Your task to perform on an android device: Add "macbook" to the cart on amazon Image 0: 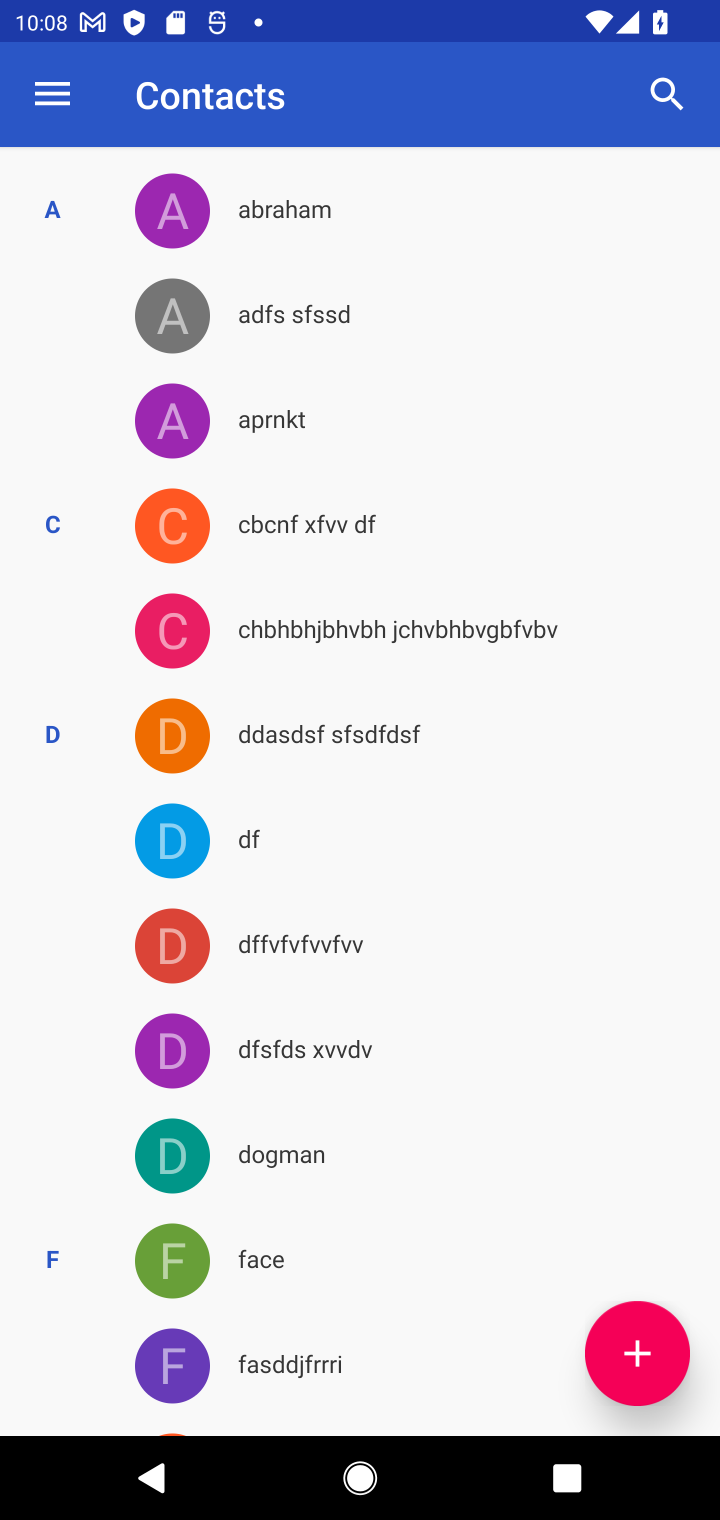
Step 0: press home button
Your task to perform on an android device: Add "macbook" to the cart on amazon Image 1: 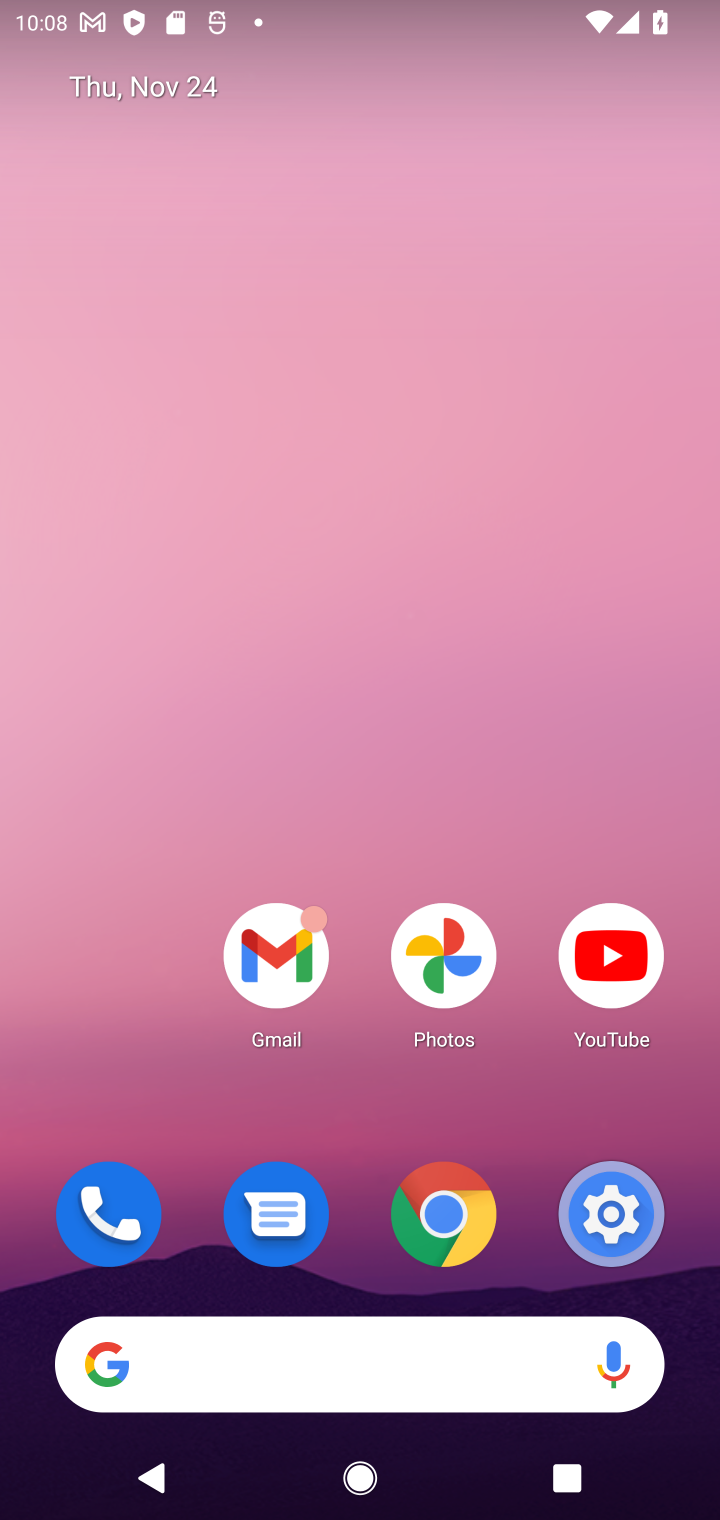
Step 1: click (389, 1376)
Your task to perform on an android device: Add "macbook" to the cart on amazon Image 2: 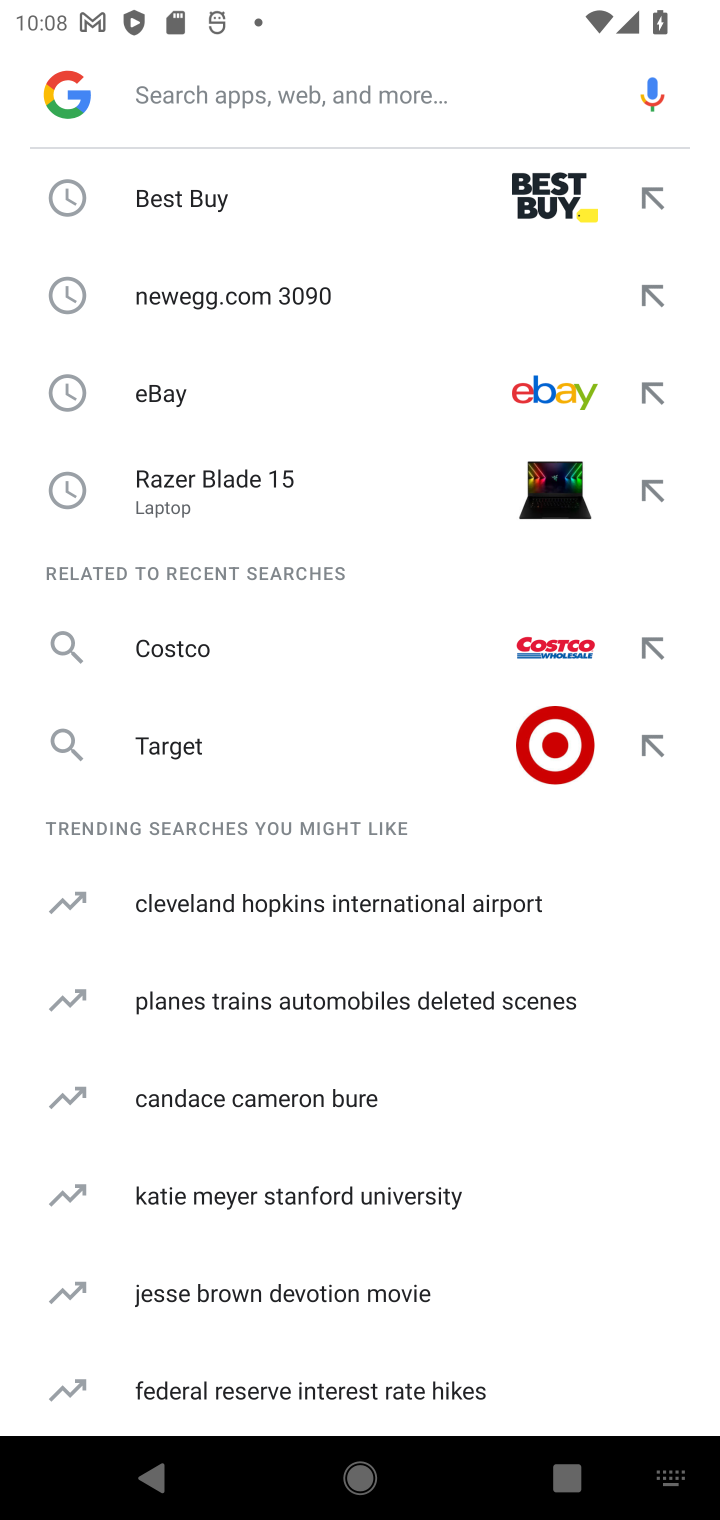
Step 2: type "amazon"
Your task to perform on an android device: Add "macbook" to the cart on amazon Image 3: 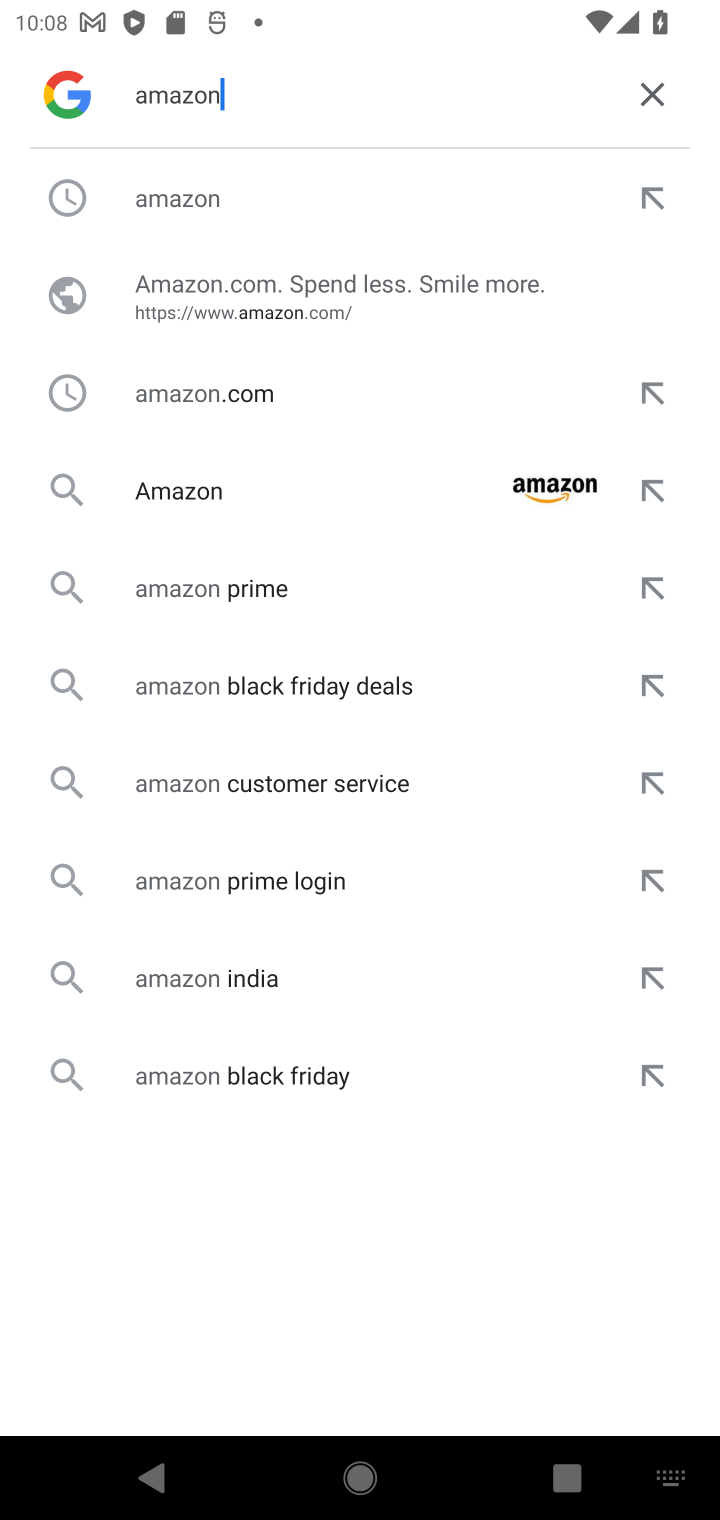
Step 3: click (238, 484)
Your task to perform on an android device: Add "macbook" to the cart on amazon Image 4: 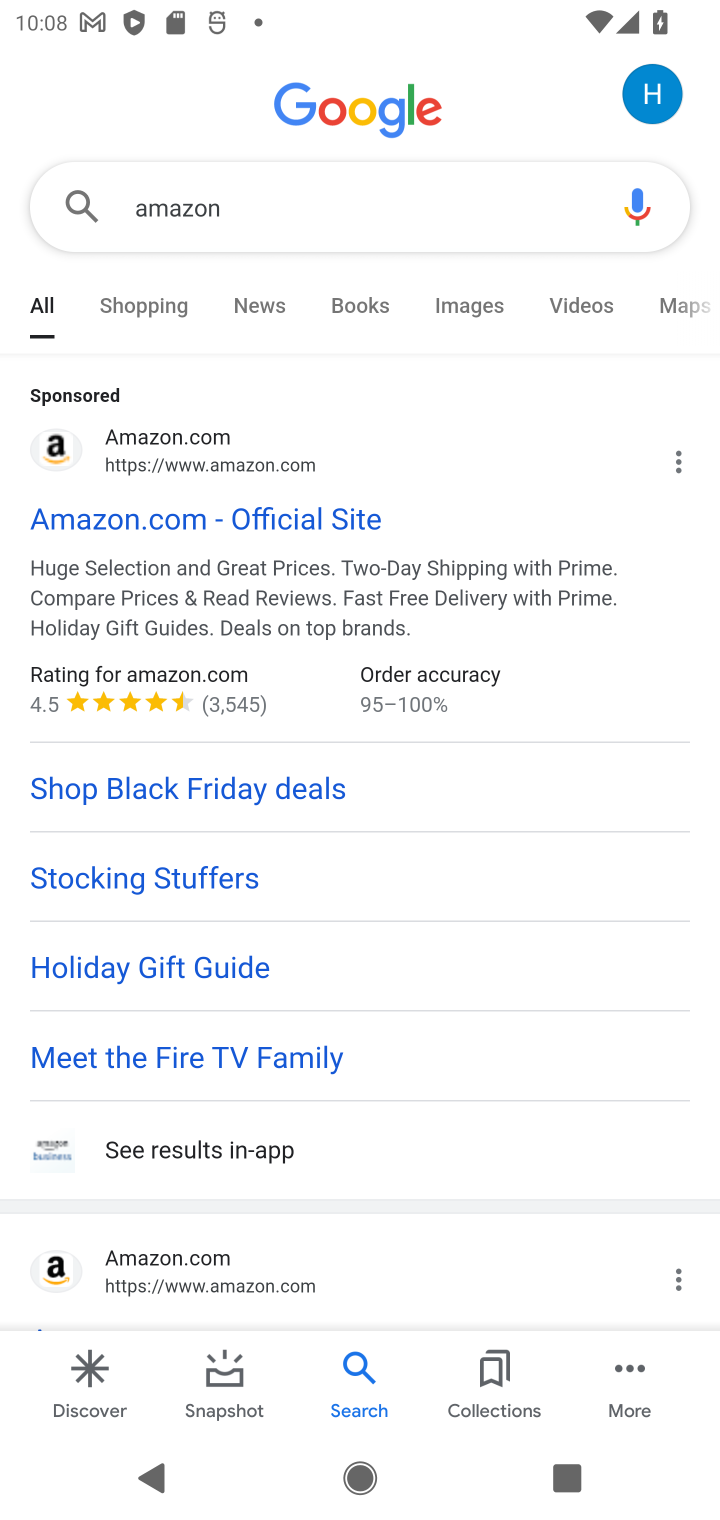
Step 4: click (259, 493)
Your task to perform on an android device: Add "macbook" to the cart on amazon Image 5: 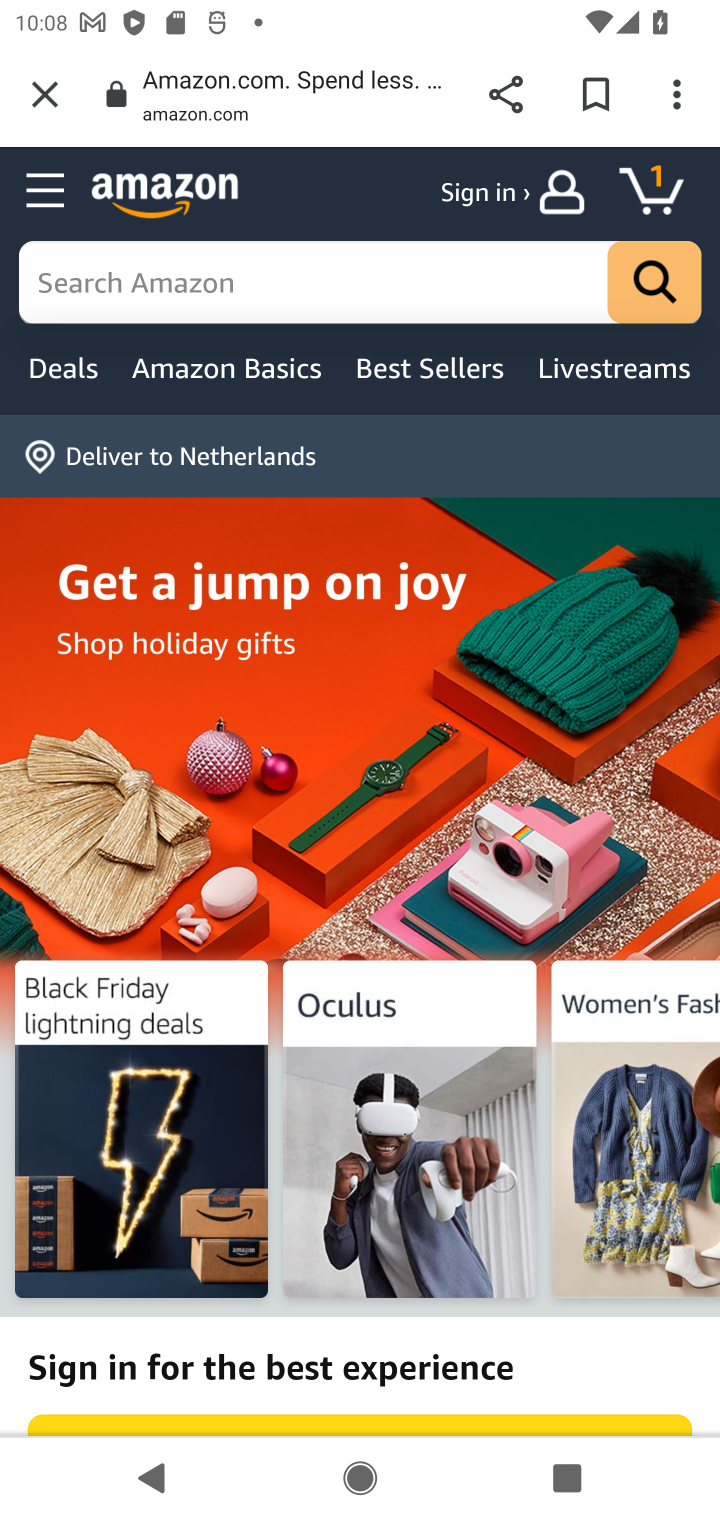
Step 5: click (325, 291)
Your task to perform on an android device: Add "macbook" to the cart on amazon Image 6: 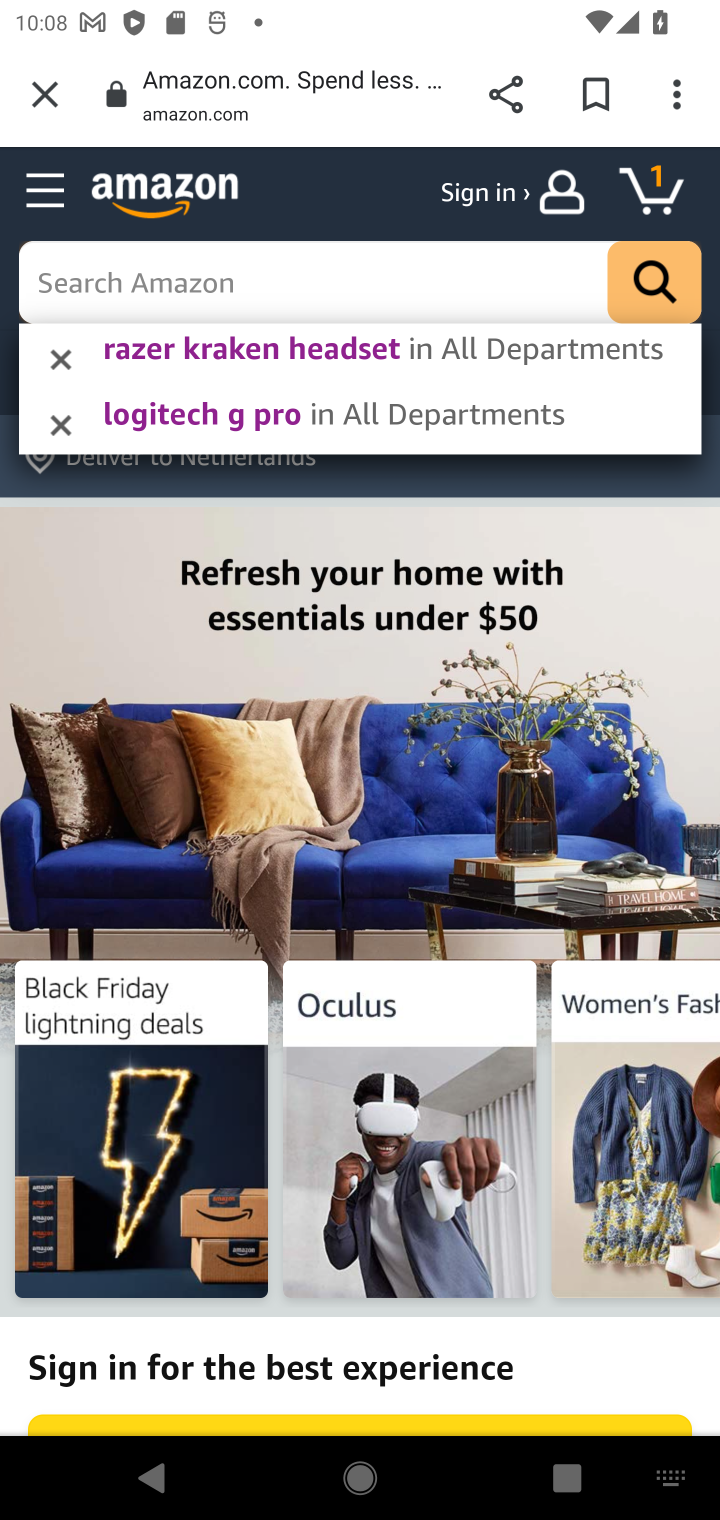
Step 6: type "macbook"
Your task to perform on an android device: Add "macbook" to the cart on amazon Image 7: 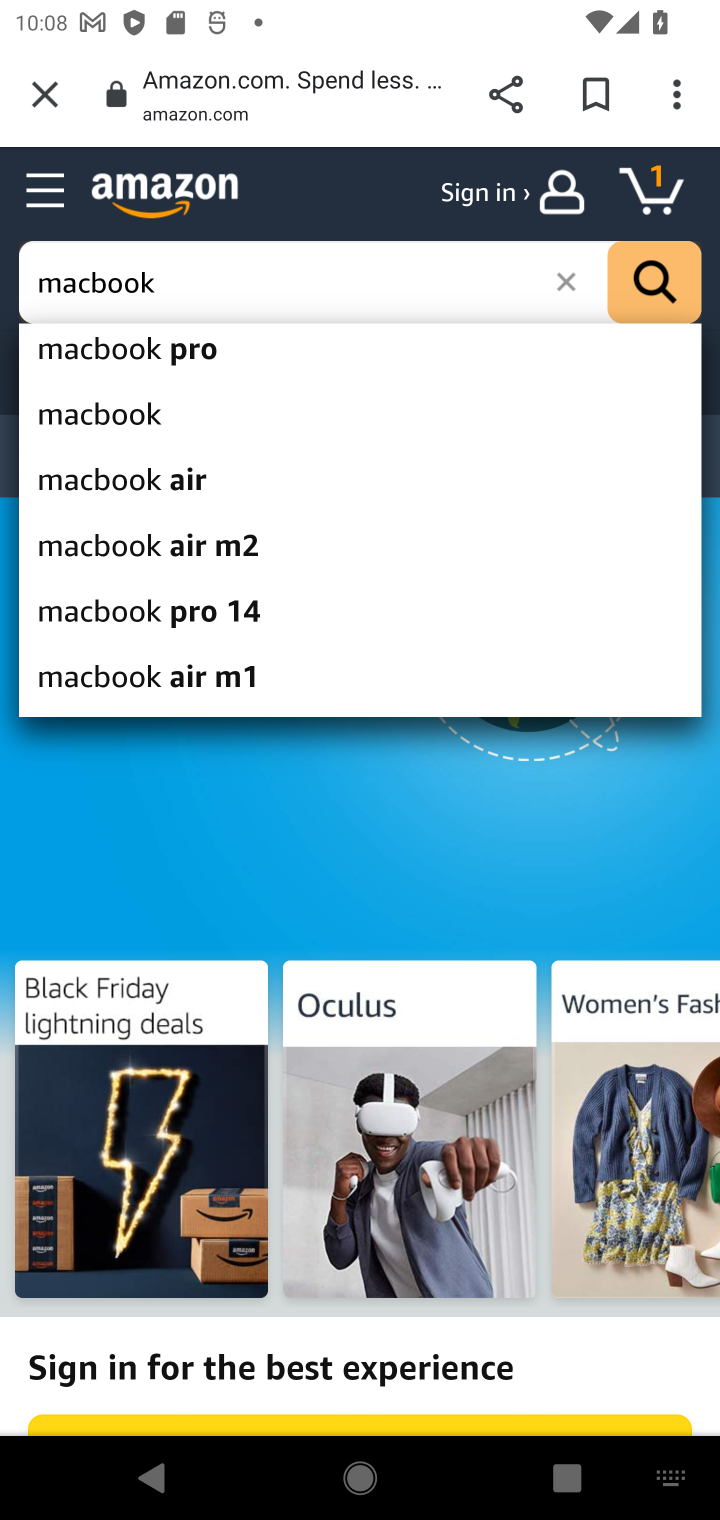
Step 7: click (136, 403)
Your task to perform on an android device: Add "macbook" to the cart on amazon Image 8: 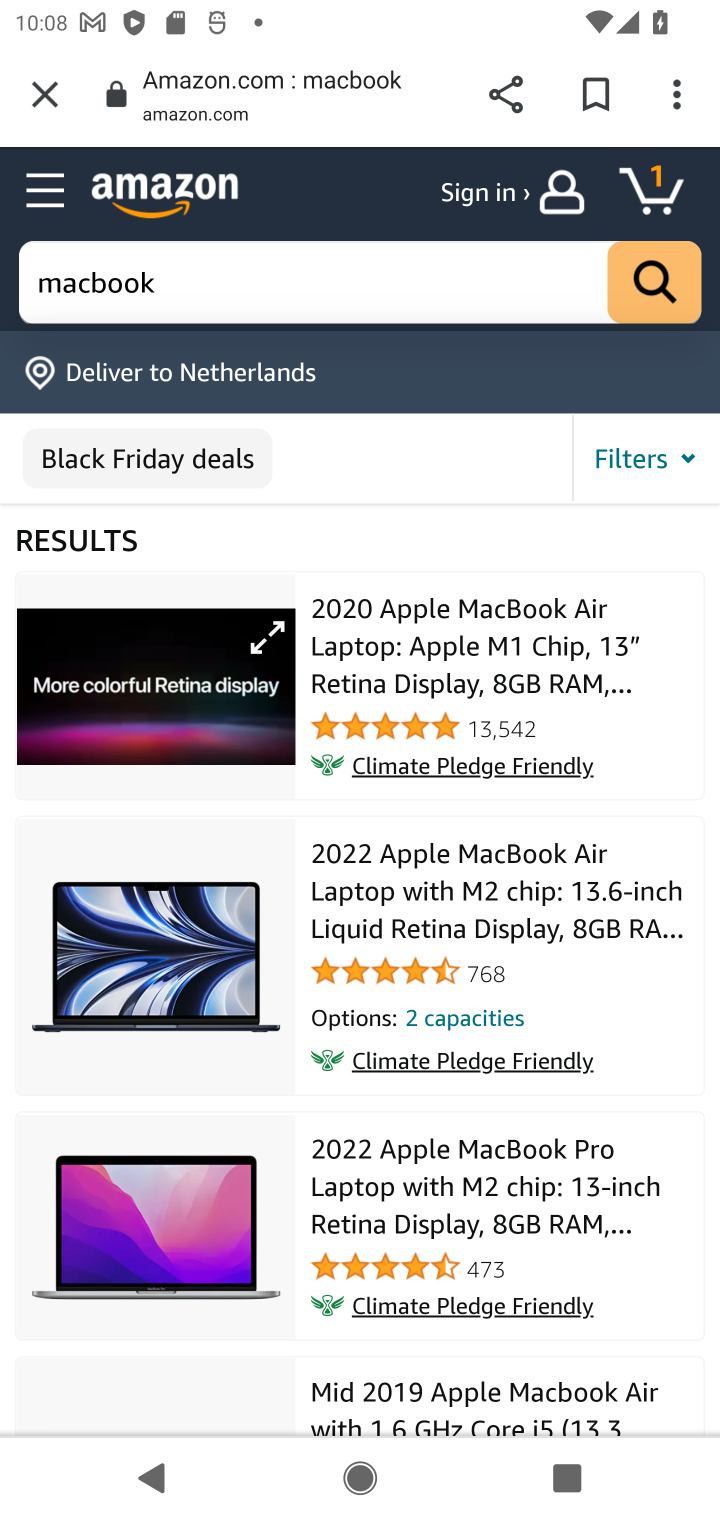
Step 8: click (349, 631)
Your task to perform on an android device: Add "macbook" to the cart on amazon Image 9: 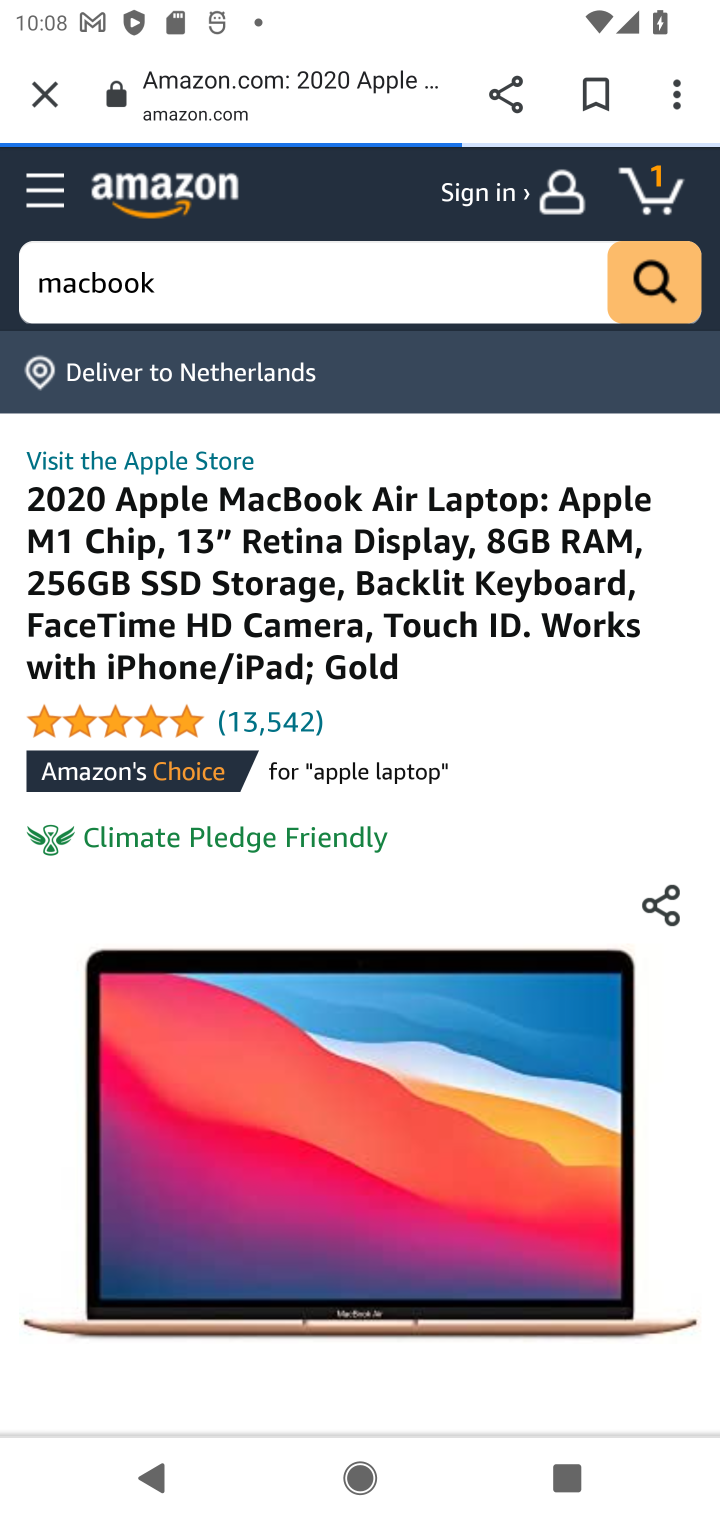
Step 9: drag from (279, 1140) to (325, 454)
Your task to perform on an android device: Add "macbook" to the cart on amazon Image 10: 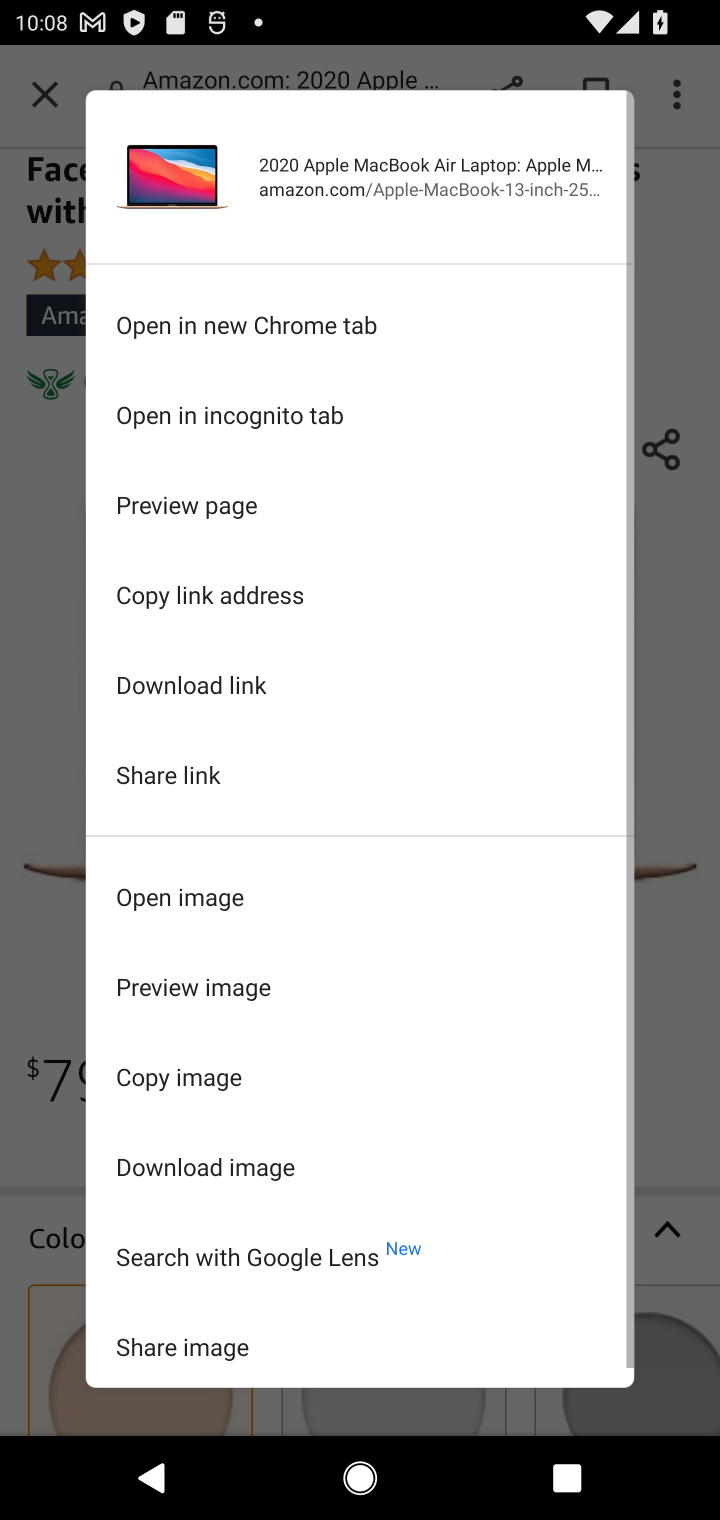
Step 10: click (54, 1132)
Your task to perform on an android device: Add "macbook" to the cart on amazon Image 11: 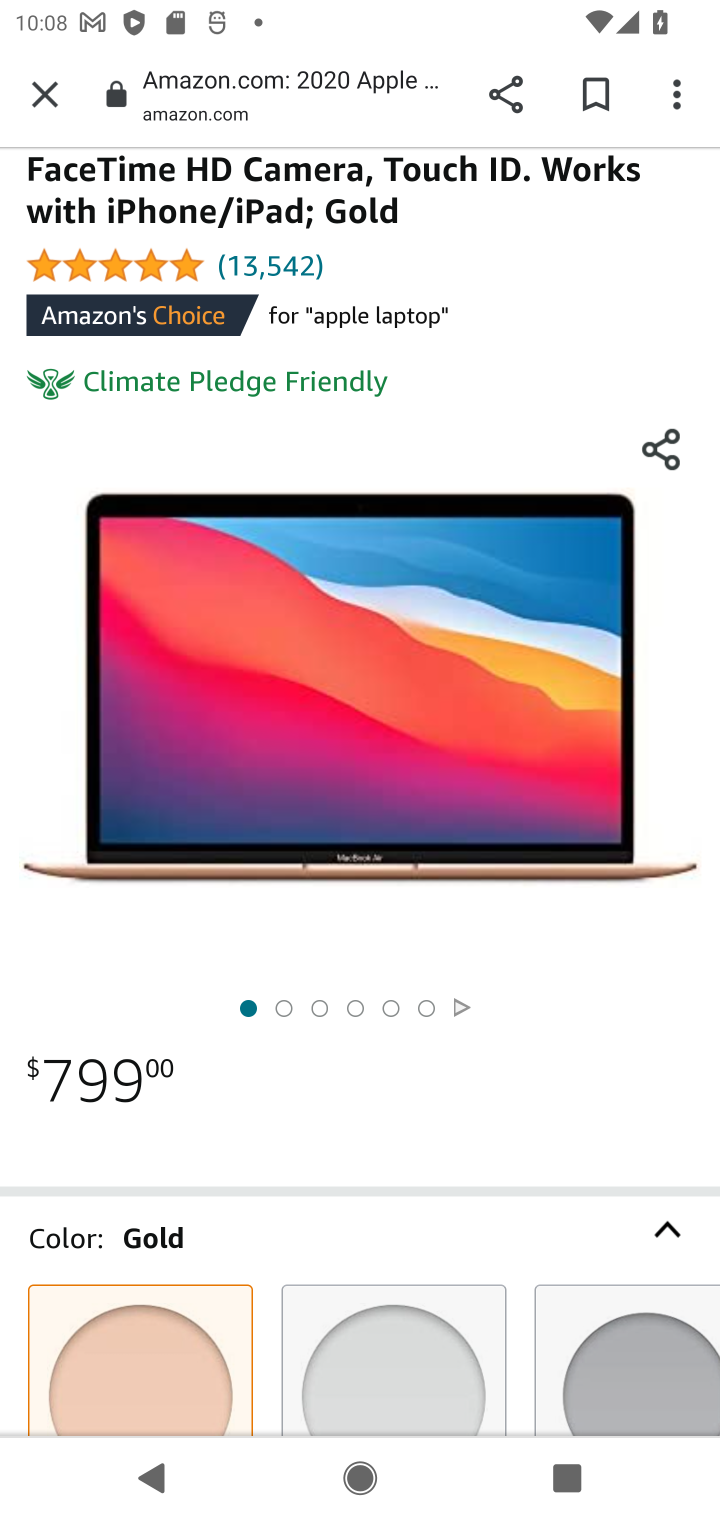
Step 11: task complete